Your task to perform on an android device: turn off airplane mode Image 0: 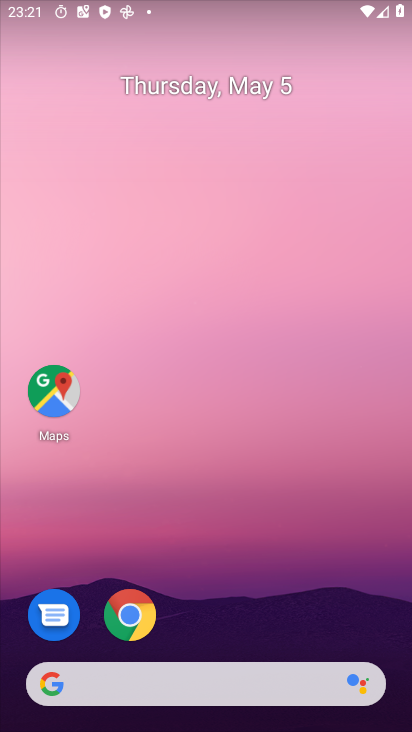
Step 0: drag from (236, 570) to (267, 44)
Your task to perform on an android device: turn off airplane mode Image 1: 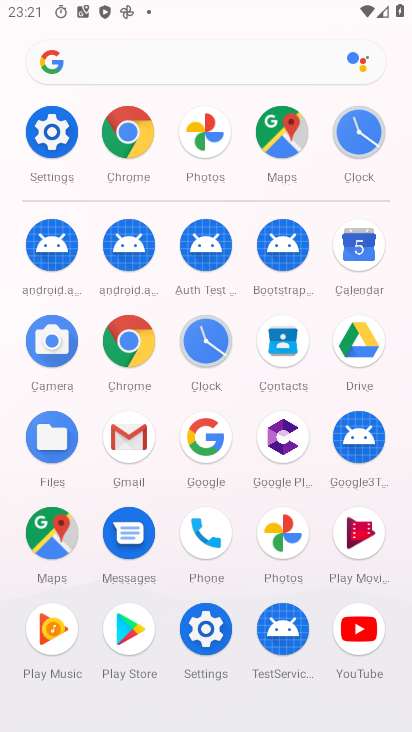
Step 1: click (59, 123)
Your task to perform on an android device: turn off airplane mode Image 2: 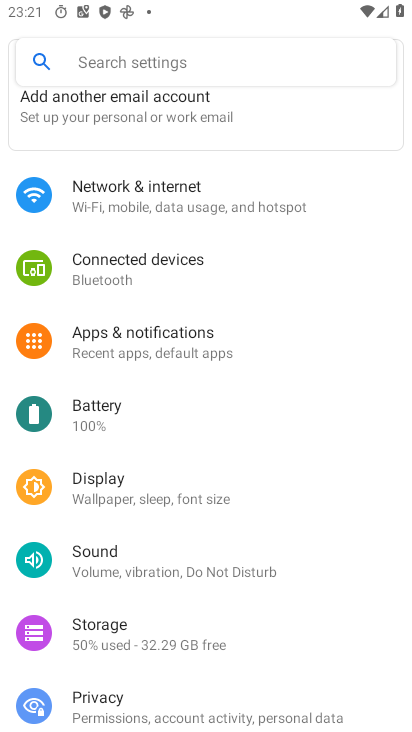
Step 2: drag from (188, 510) to (202, 308)
Your task to perform on an android device: turn off airplane mode Image 3: 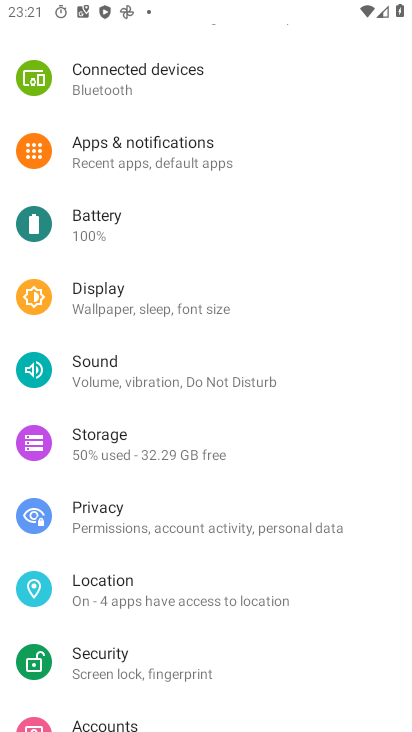
Step 3: drag from (196, 239) to (226, 555)
Your task to perform on an android device: turn off airplane mode Image 4: 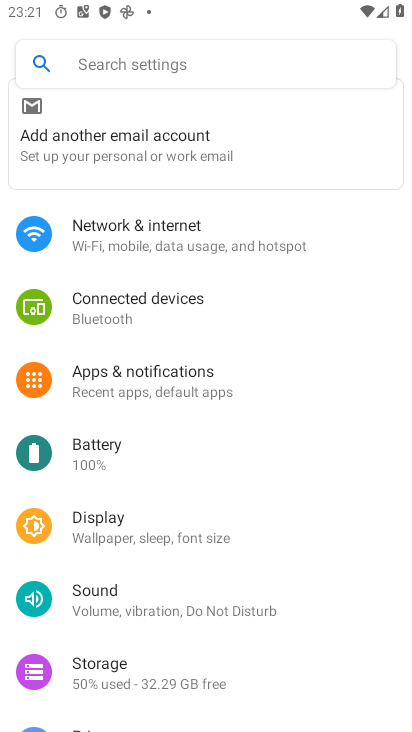
Step 4: click (142, 220)
Your task to perform on an android device: turn off airplane mode Image 5: 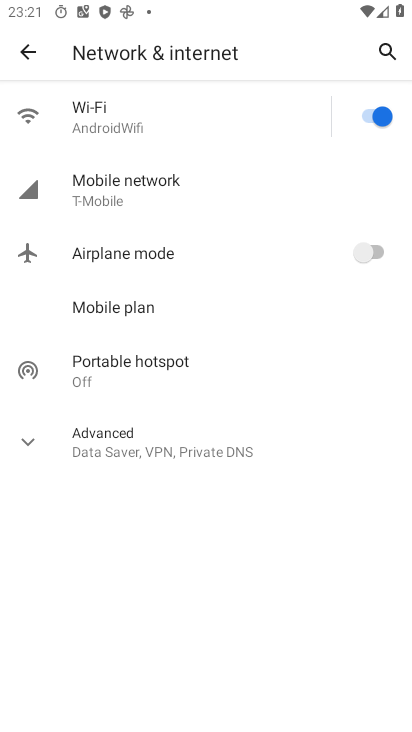
Step 5: task complete